Your task to perform on an android device: check the backup settings in the google photos Image 0: 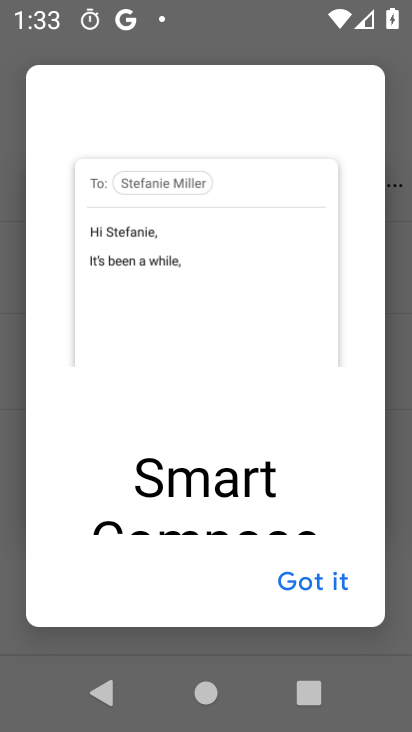
Step 0: press home button
Your task to perform on an android device: check the backup settings in the google photos Image 1: 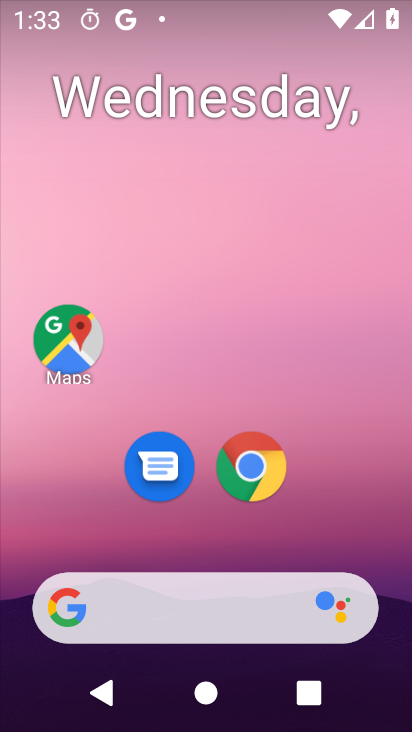
Step 1: drag from (333, 486) to (342, 5)
Your task to perform on an android device: check the backup settings in the google photos Image 2: 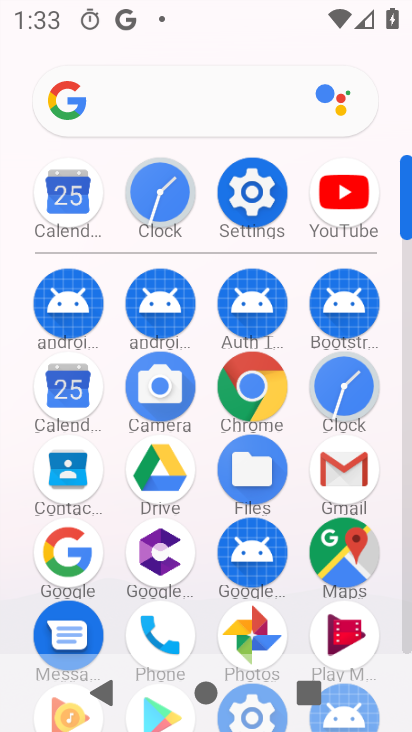
Step 2: click (236, 617)
Your task to perform on an android device: check the backup settings in the google photos Image 3: 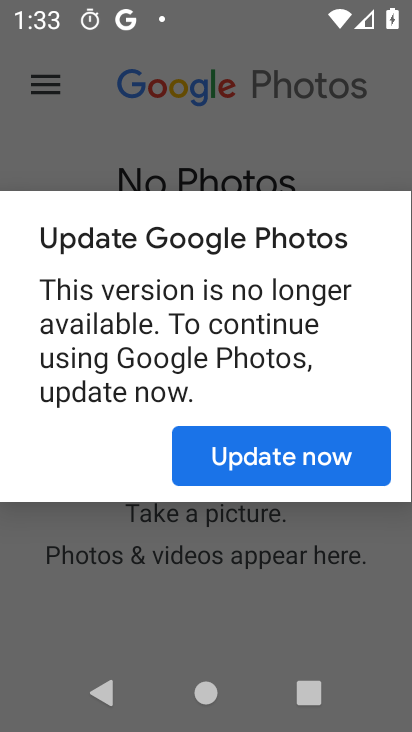
Step 3: click (314, 447)
Your task to perform on an android device: check the backup settings in the google photos Image 4: 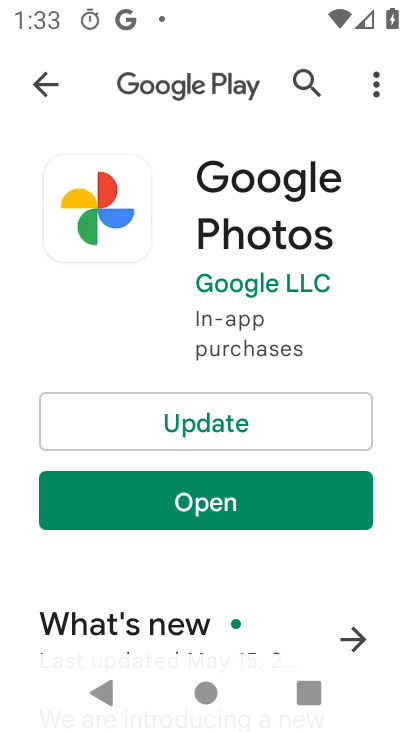
Step 4: click (284, 425)
Your task to perform on an android device: check the backup settings in the google photos Image 5: 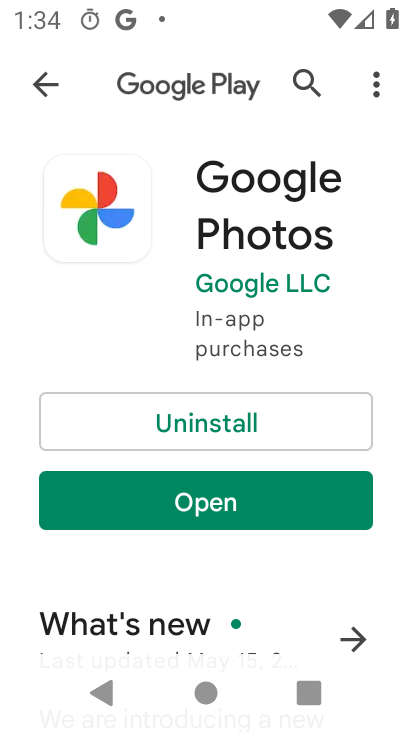
Step 5: click (275, 488)
Your task to perform on an android device: check the backup settings in the google photos Image 6: 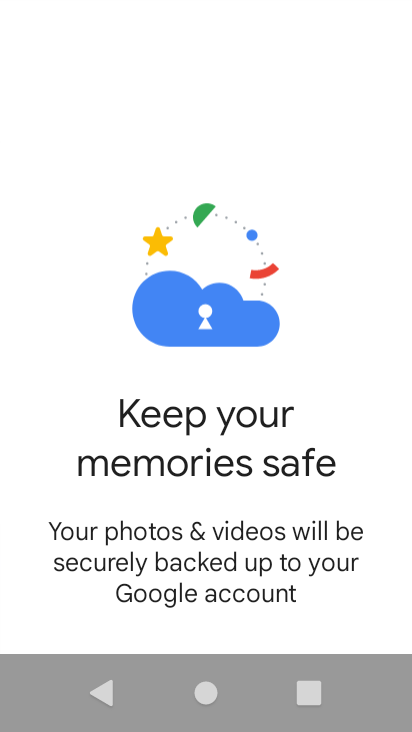
Step 6: click (347, 573)
Your task to perform on an android device: check the backup settings in the google photos Image 7: 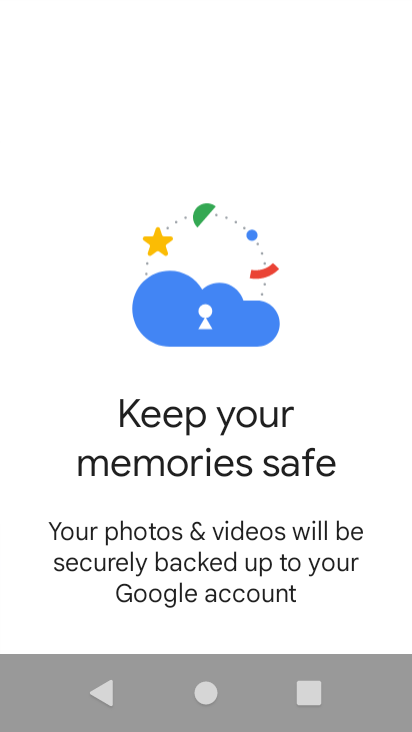
Step 7: drag from (345, 594) to (292, 328)
Your task to perform on an android device: check the backup settings in the google photos Image 8: 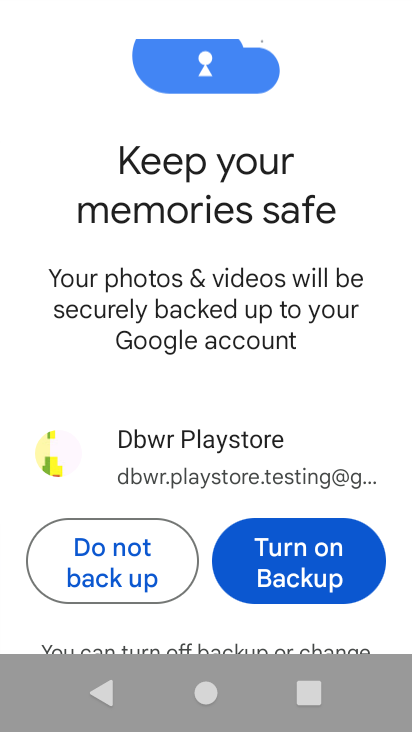
Step 8: click (301, 554)
Your task to perform on an android device: check the backup settings in the google photos Image 9: 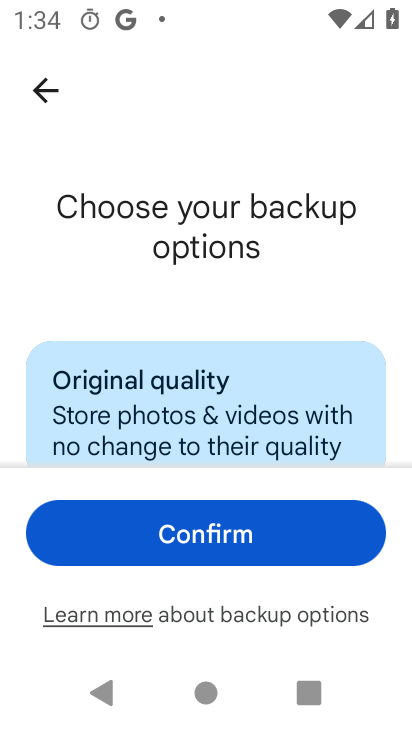
Step 9: click (299, 552)
Your task to perform on an android device: check the backup settings in the google photos Image 10: 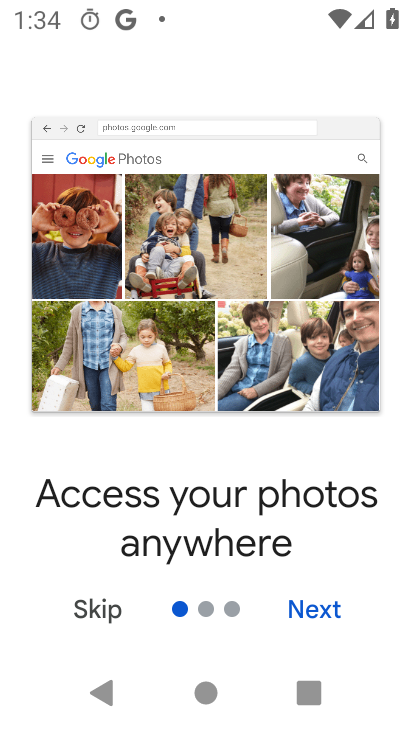
Step 10: click (313, 606)
Your task to perform on an android device: check the backup settings in the google photos Image 11: 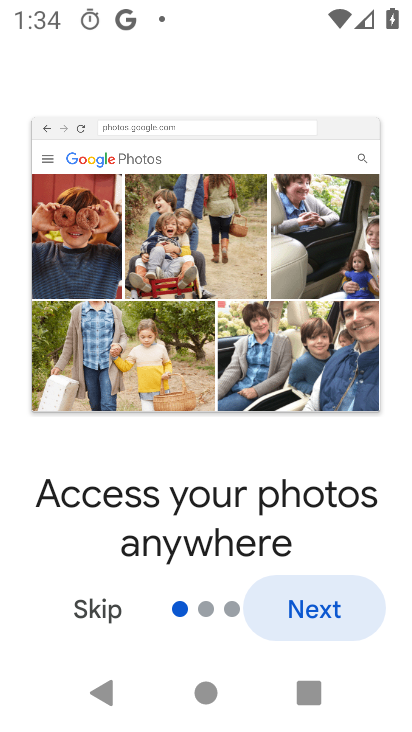
Step 11: click (313, 606)
Your task to perform on an android device: check the backup settings in the google photos Image 12: 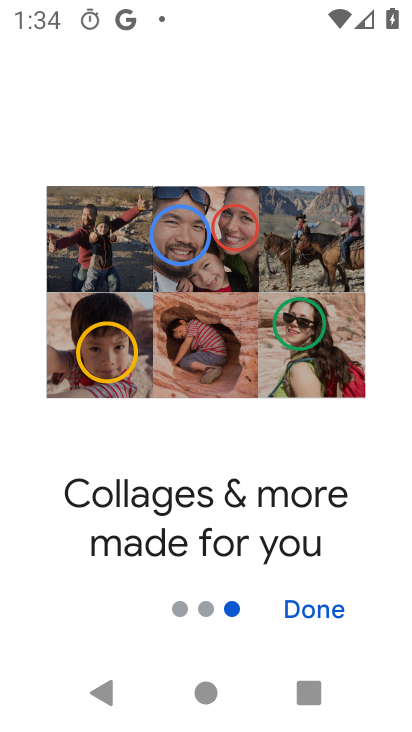
Step 12: click (317, 604)
Your task to perform on an android device: check the backup settings in the google photos Image 13: 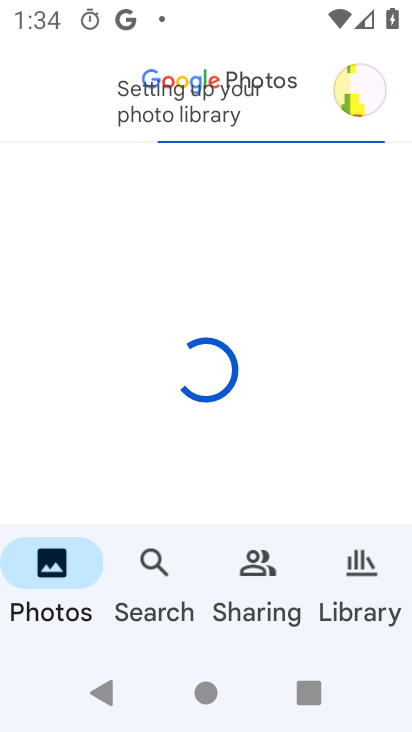
Step 13: click (376, 106)
Your task to perform on an android device: check the backup settings in the google photos Image 14: 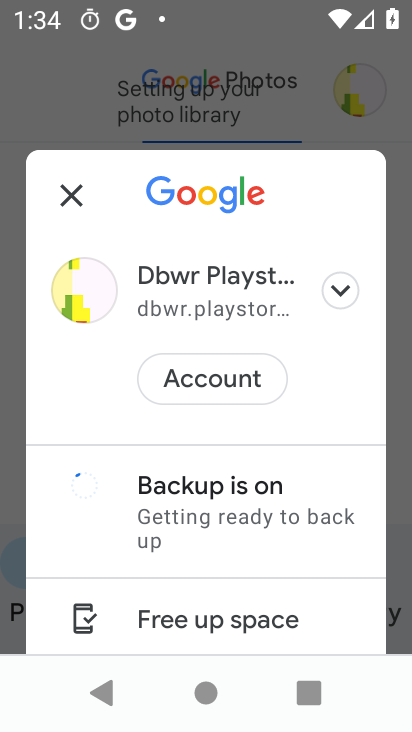
Step 14: drag from (288, 549) to (290, 200)
Your task to perform on an android device: check the backup settings in the google photos Image 15: 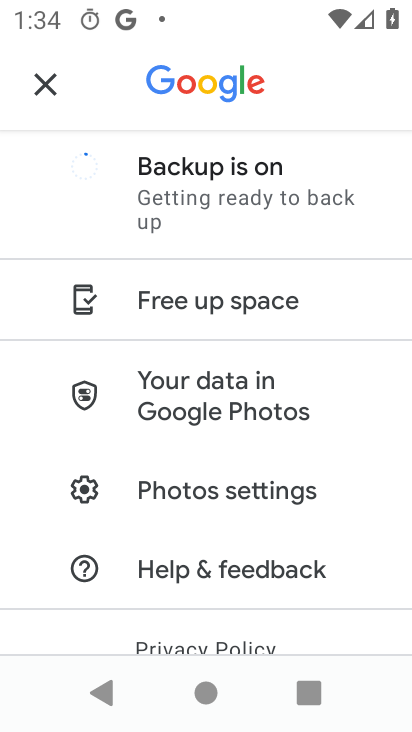
Step 15: click (256, 216)
Your task to perform on an android device: check the backup settings in the google photos Image 16: 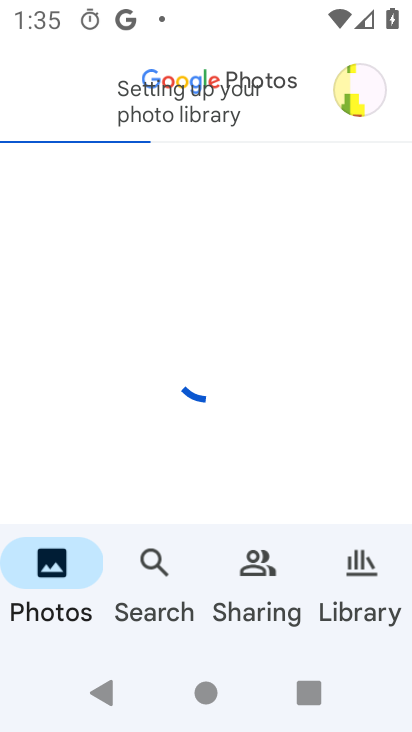
Step 16: task complete